Your task to perform on an android device: allow notifications from all sites in the chrome app Image 0: 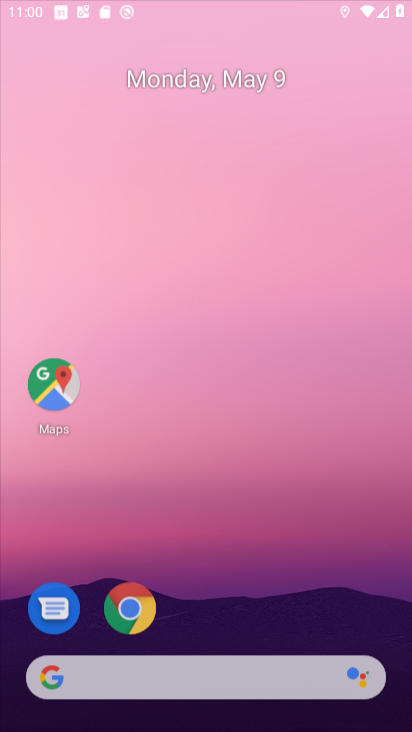
Step 0: press home button
Your task to perform on an android device: allow notifications from all sites in the chrome app Image 1: 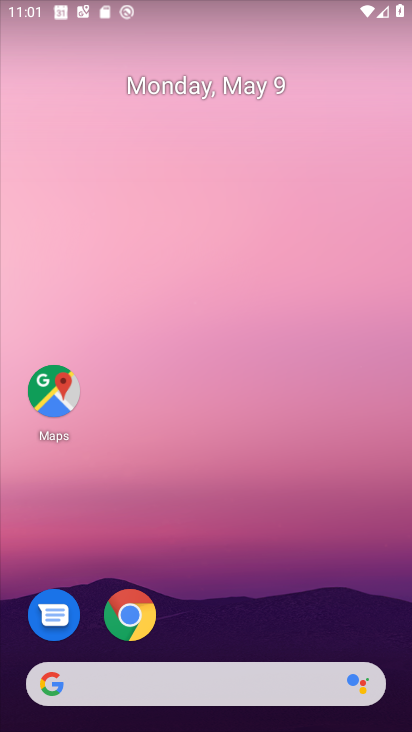
Step 1: drag from (328, 705) to (262, 234)
Your task to perform on an android device: allow notifications from all sites in the chrome app Image 2: 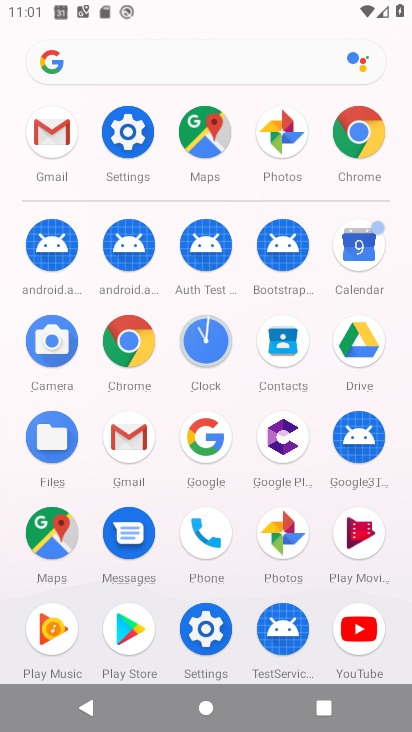
Step 2: click (367, 138)
Your task to perform on an android device: allow notifications from all sites in the chrome app Image 3: 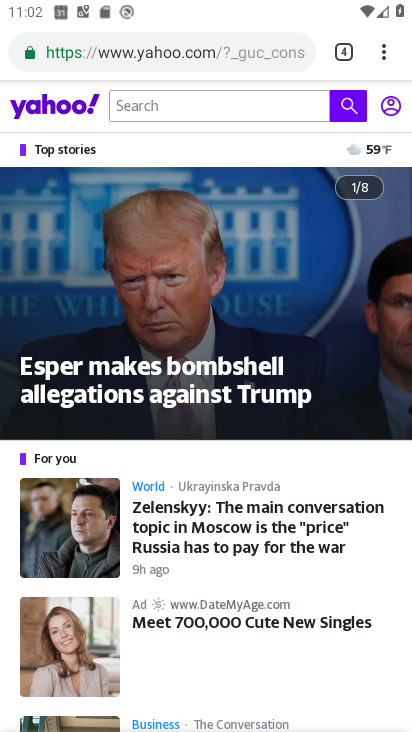
Step 3: click (384, 58)
Your task to perform on an android device: allow notifications from all sites in the chrome app Image 4: 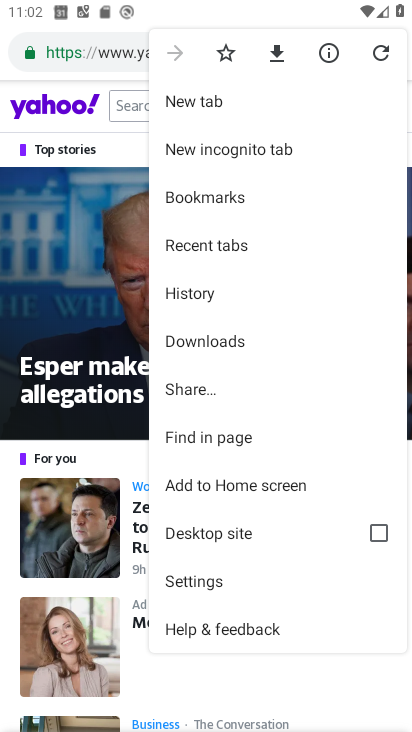
Step 4: click (229, 581)
Your task to perform on an android device: allow notifications from all sites in the chrome app Image 5: 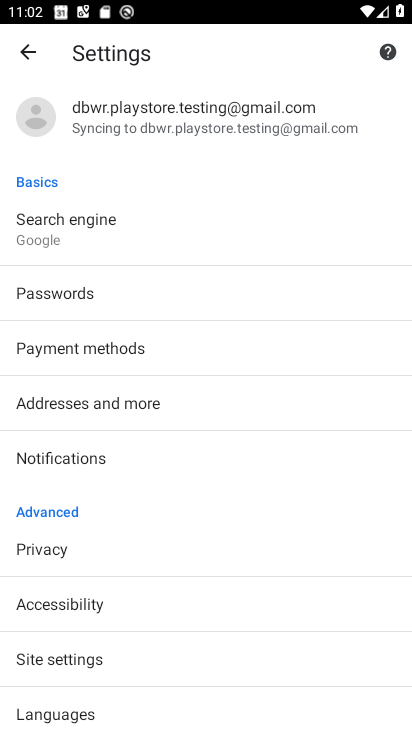
Step 5: drag from (171, 638) to (172, 468)
Your task to perform on an android device: allow notifications from all sites in the chrome app Image 6: 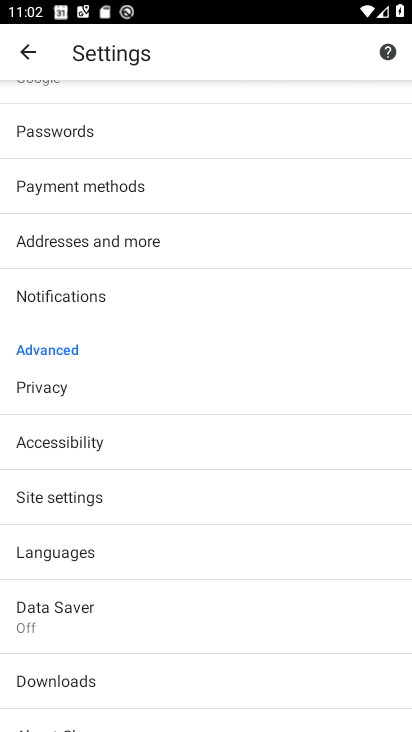
Step 6: drag from (128, 589) to (184, 395)
Your task to perform on an android device: allow notifications from all sites in the chrome app Image 7: 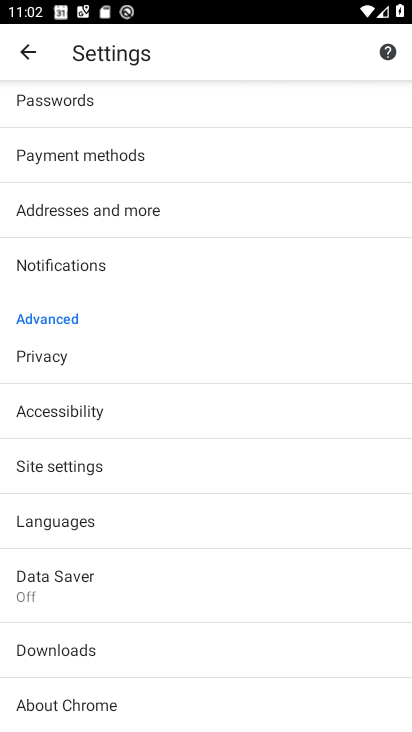
Step 7: click (79, 470)
Your task to perform on an android device: allow notifications from all sites in the chrome app Image 8: 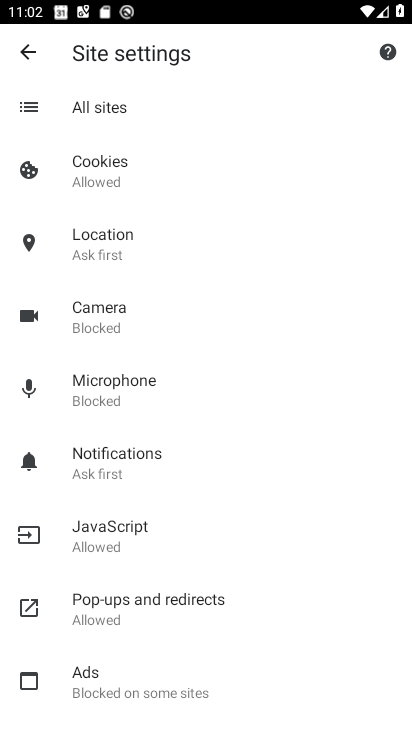
Step 8: click (79, 472)
Your task to perform on an android device: allow notifications from all sites in the chrome app Image 9: 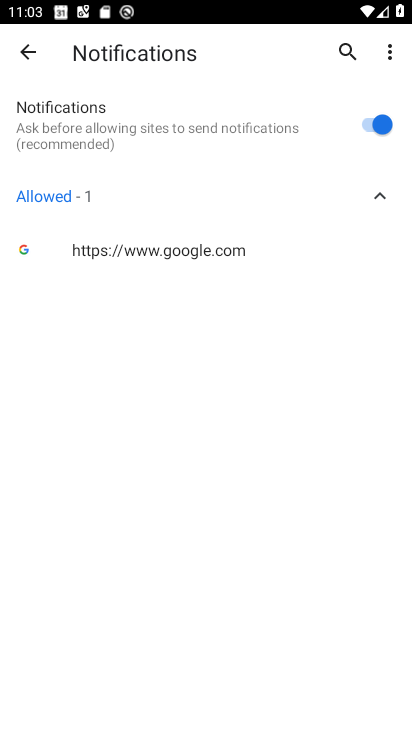
Step 9: click (361, 137)
Your task to perform on an android device: allow notifications from all sites in the chrome app Image 10: 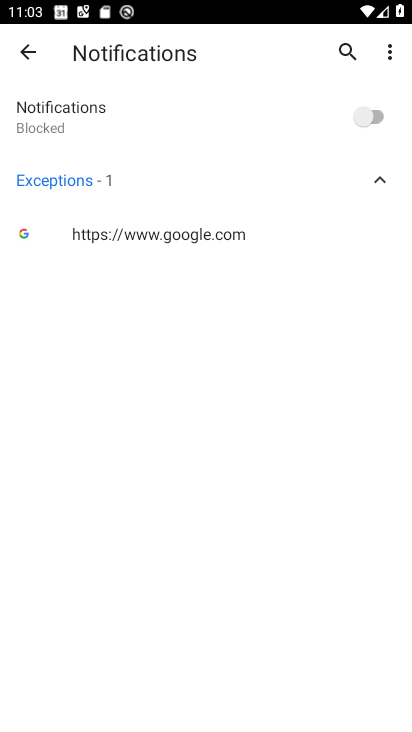
Step 10: click (328, 119)
Your task to perform on an android device: allow notifications from all sites in the chrome app Image 11: 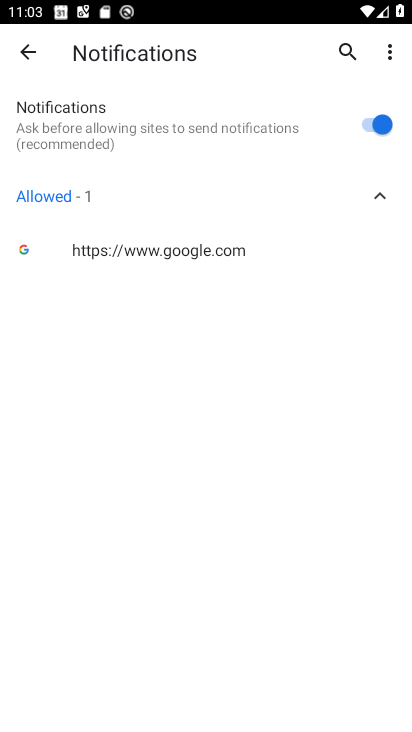
Step 11: task complete